Your task to perform on an android device: What's the weather? Image 0: 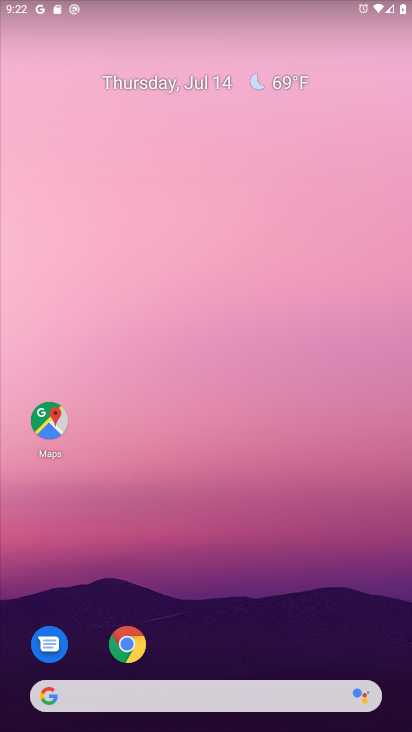
Step 0: click (209, 692)
Your task to perform on an android device: What's the weather? Image 1: 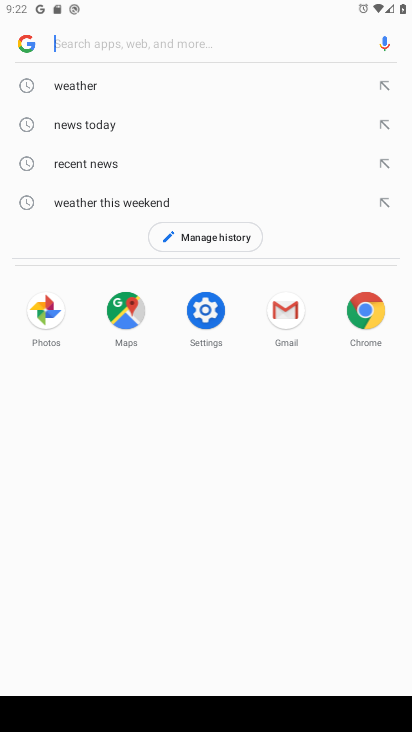
Step 1: type "weather"
Your task to perform on an android device: What's the weather? Image 2: 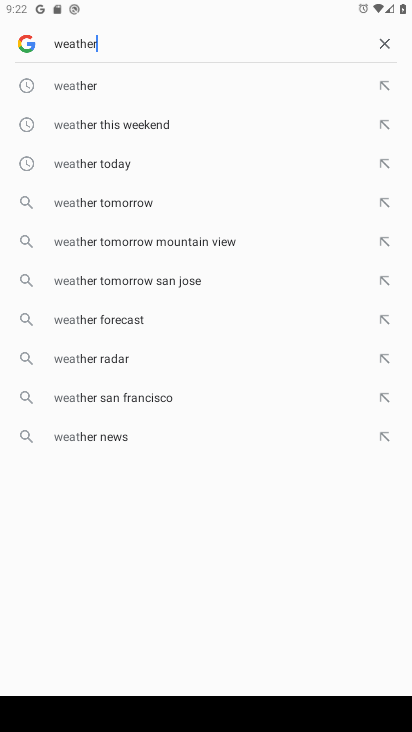
Step 2: type ""
Your task to perform on an android device: What's the weather? Image 3: 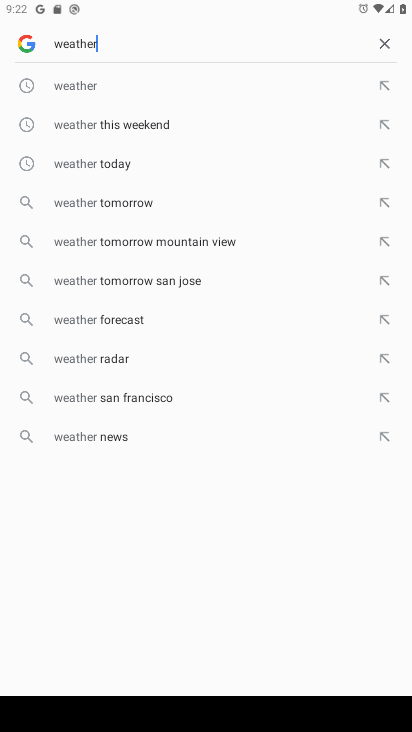
Step 3: click (103, 87)
Your task to perform on an android device: What's the weather? Image 4: 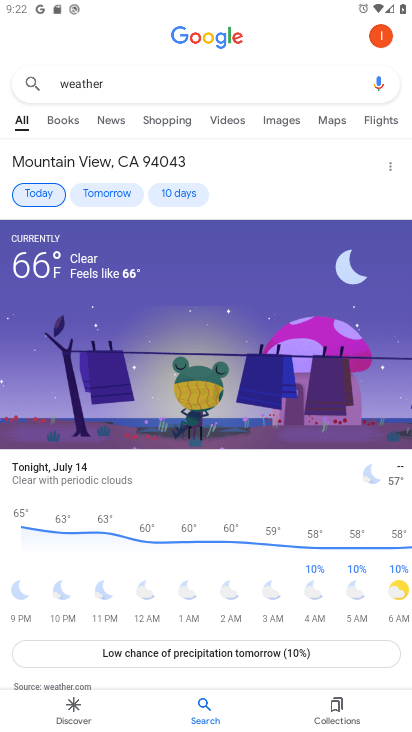
Step 4: task complete